Your task to perform on an android device: turn off priority inbox in the gmail app Image 0: 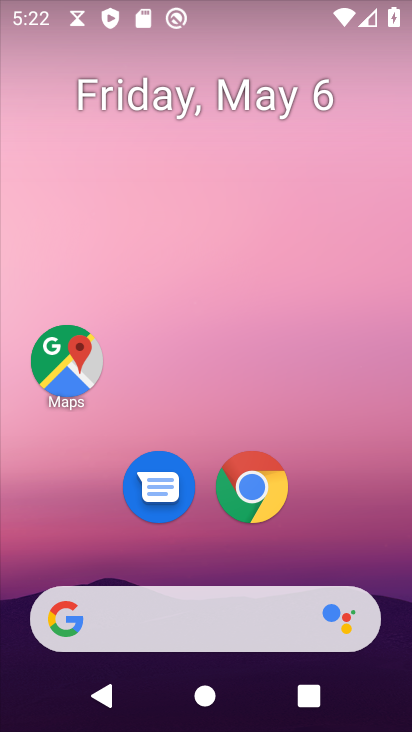
Step 0: drag from (340, 552) to (315, 17)
Your task to perform on an android device: turn off priority inbox in the gmail app Image 1: 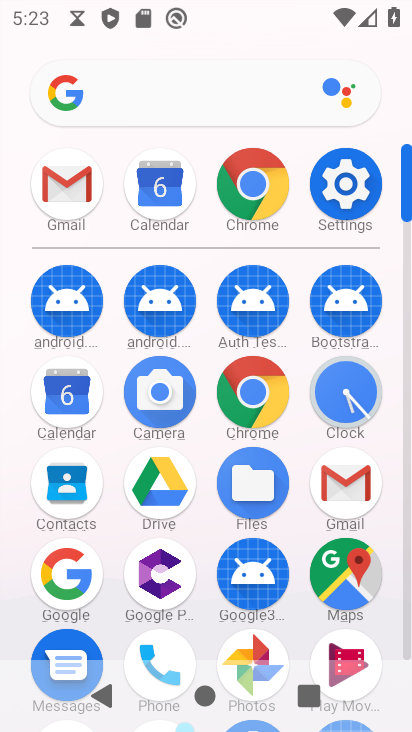
Step 1: click (61, 187)
Your task to perform on an android device: turn off priority inbox in the gmail app Image 2: 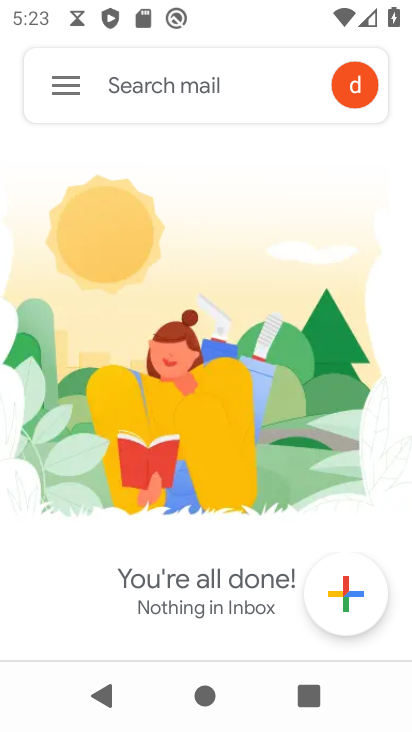
Step 2: click (54, 85)
Your task to perform on an android device: turn off priority inbox in the gmail app Image 3: 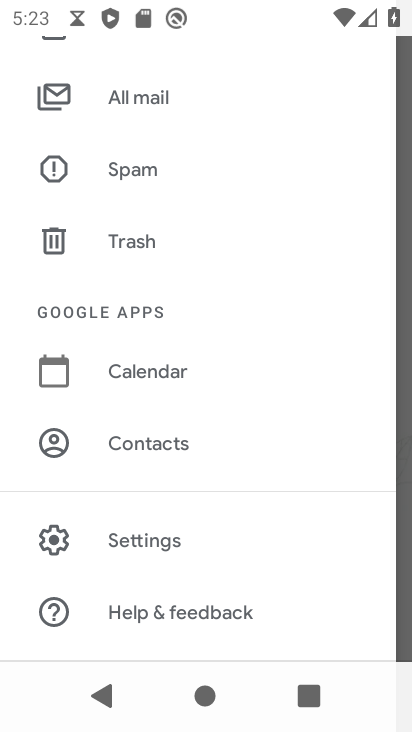
Step 3: click (134, 536)
Your task to perform on an android device: turn off priority inbox in the gmail app Image 4: 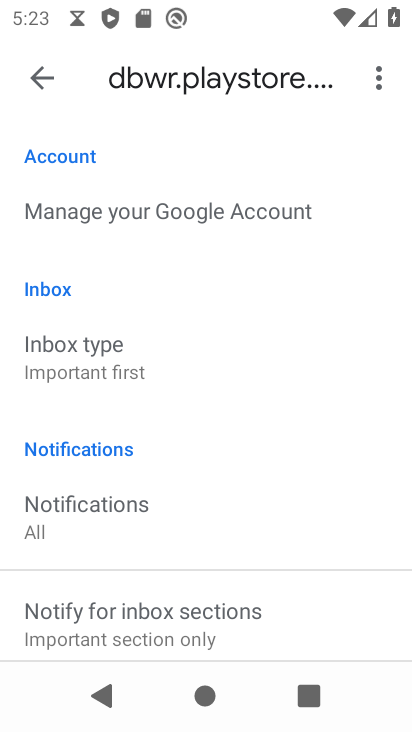
Step 4: click (117, 354)
Your task to perform on an android device: turn off priority inbox in the gmail app Image 5: 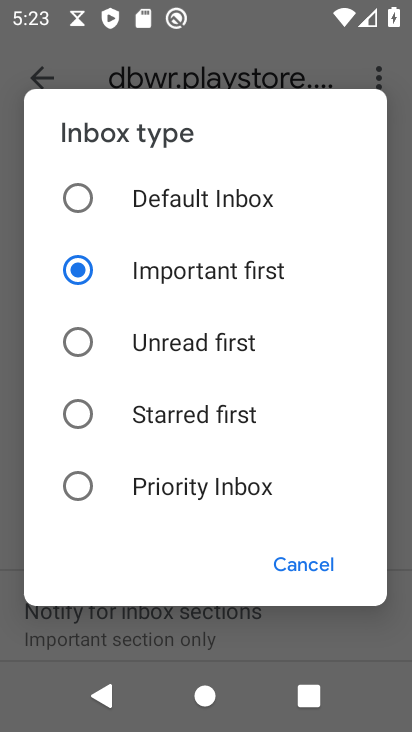
Step 5: click (317, 559)
Your task to perform on an android device: turn off priority inbox in the gmail app Image 6: 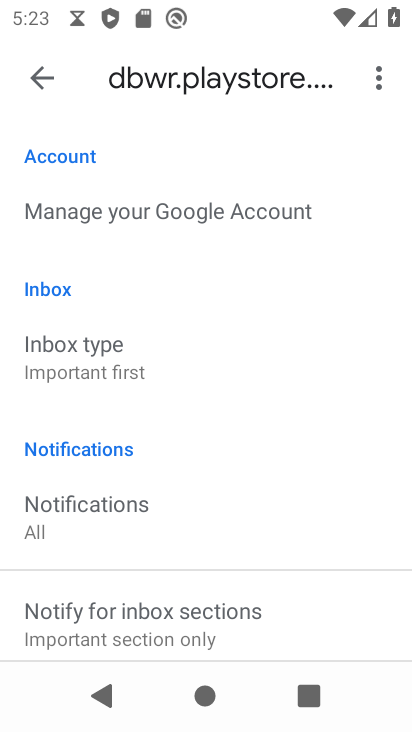
Step 6: task complete